Your task to perform on an android device: Search for vegetarian restaurants on Maps Image 0: 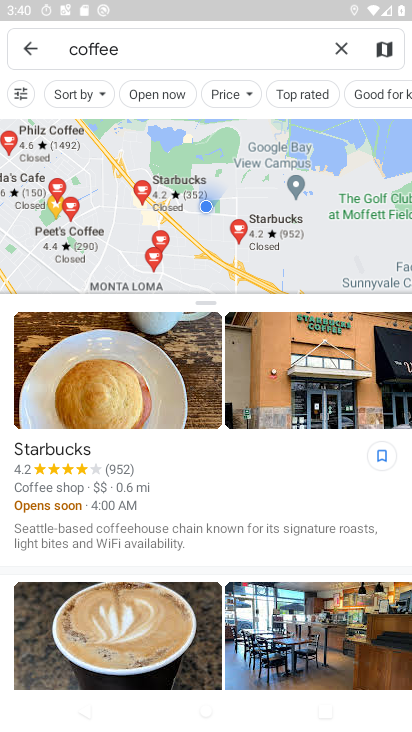
Step 0: press home button
Your task to perform on an android device: Search for vegetarian restaurants on Maps Image 1: 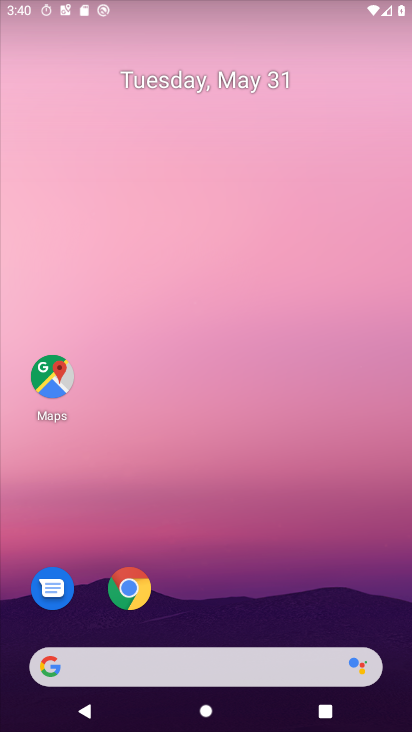
Step 1: drag from (212, 652) to (295, 161)
Your task to perform on an android device: Search for vegetarian restaurants on Maps Image 2: 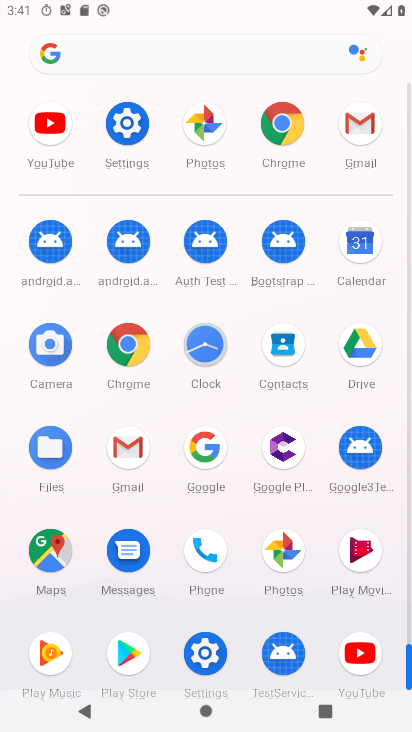
Step 2: drag from (310, 441) to (356, 136)
Your task to perform on an android device: Search for vegetarian restaurants on Maps Image 3: 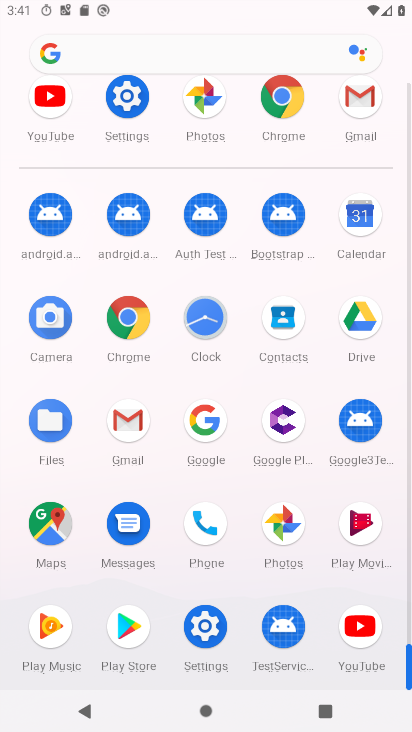
Step 3: click (63, 541)
Your task to perform on an android device: Search for vegetarian restaurants on Maps Image 4: 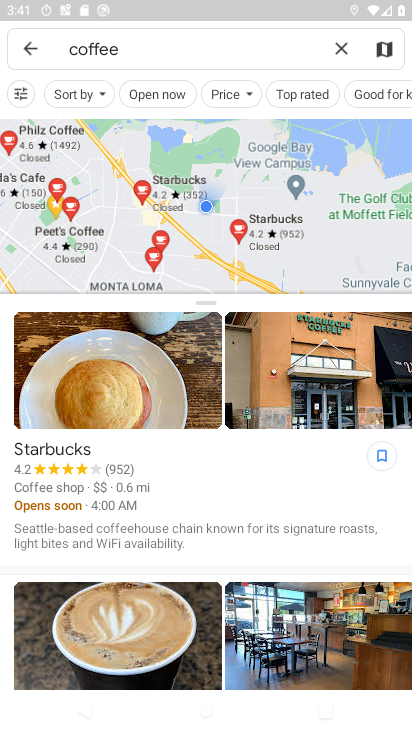
Step 4: click (346, 45)
Your task to perform on an android device: Search for vegetarian restaurants on Maps Image 5: 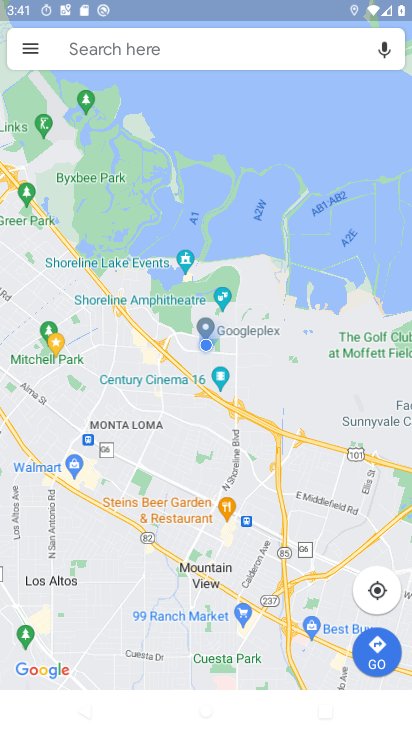
Step 5: click (213, 39)
Your task to perform on an android device: Search for vegetarian restaurants on Maps Image 6: 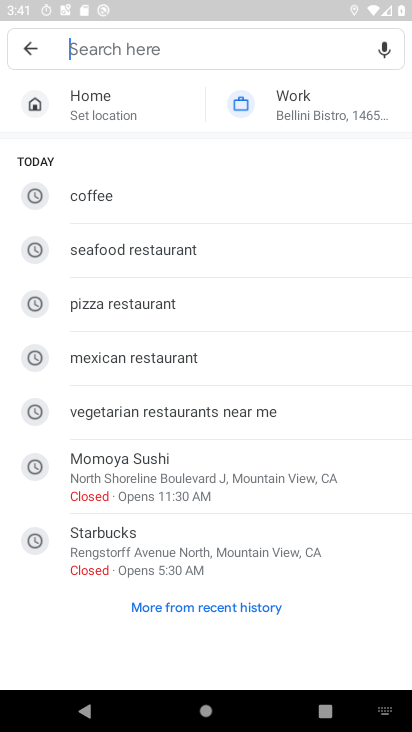
Step 6: type "vege"
Your task to perform on an android device: Search for vegetarian restaurants on Maps Image 7: 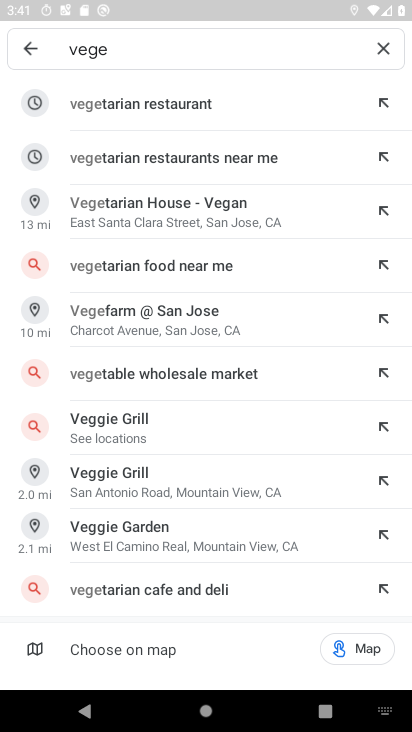
Step 7: click (202, 105)
Your task to perform on an android device: Search for vegetarian restaurants on Maps Image 8: 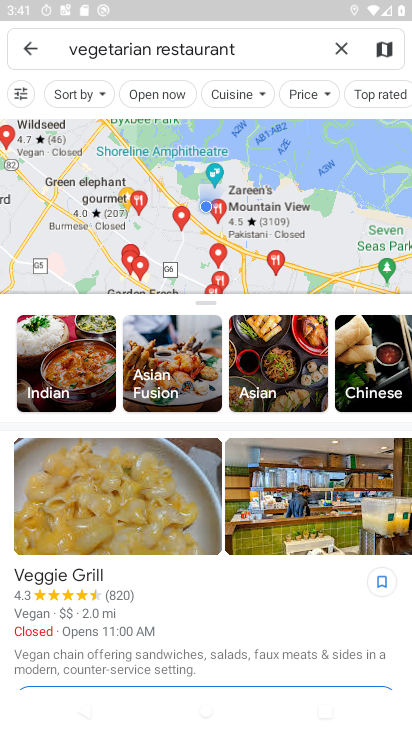
Step 8: task complete